Your task to perform on an android device: Check the weather Image 0: 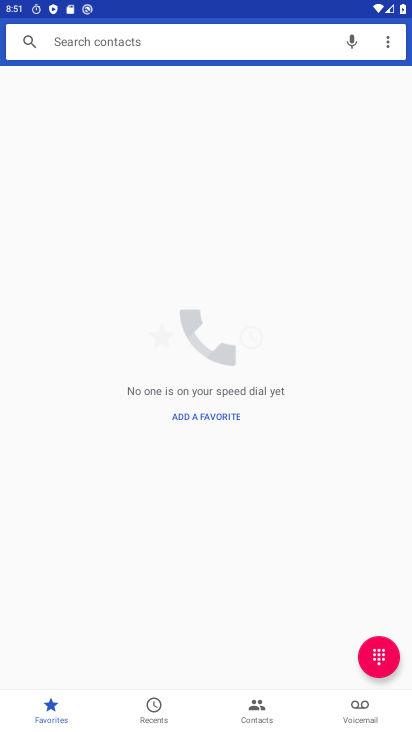
Step 0: drag from (246, 599) to (191, 101)
Your task to perform on an android device: Check the weather Image 1: 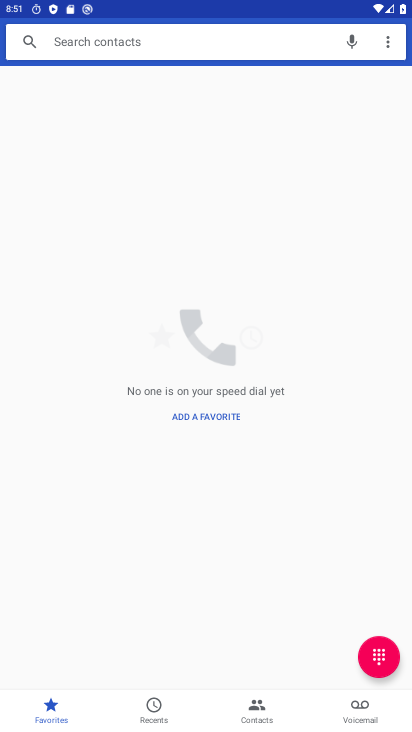
Step 1: drag from (144, 587) to (167, 363)
Your task to perform on an android device: Check the weather Image 2: 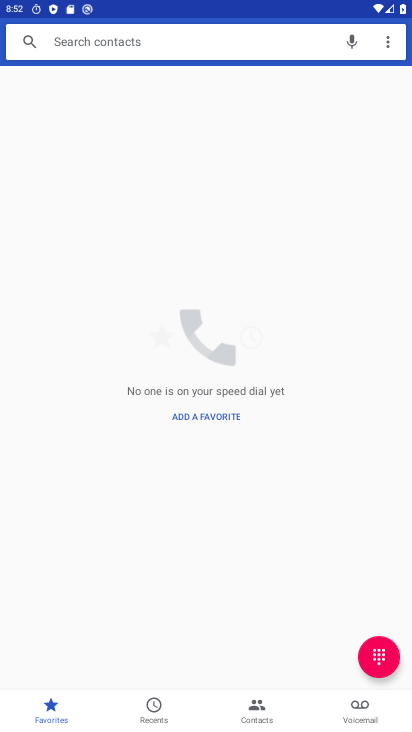
Step 2: drag from (220, 581) to (257, 286)
Your task to perform on an android device: Check the weather Image 3: 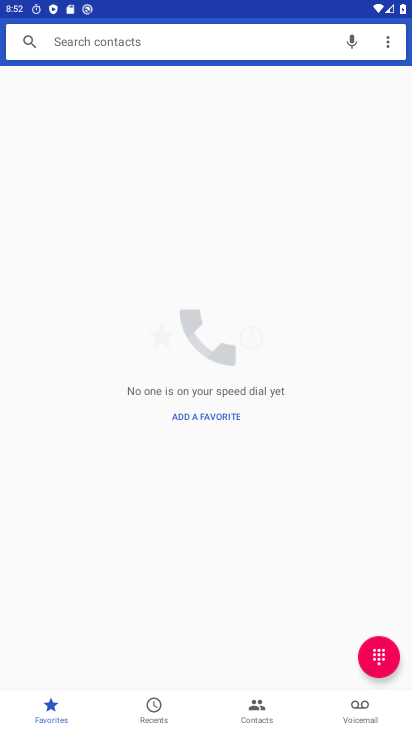
Step 3: press home button
Your task to perform on an android device: Check the weather Image 4: 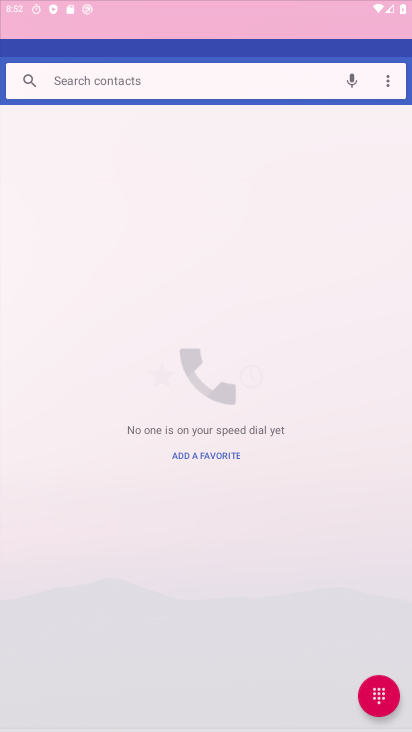
Step 4: drag from (266, 583) to (292, 128)
Your task to perform on an android device: Check the weather Image 5: 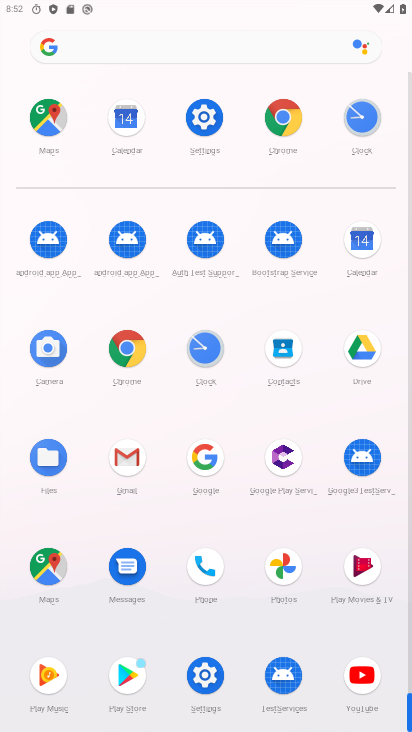
Step 5: click (112, 46)
Your task to perform on an android device: Check the weather Image 6: 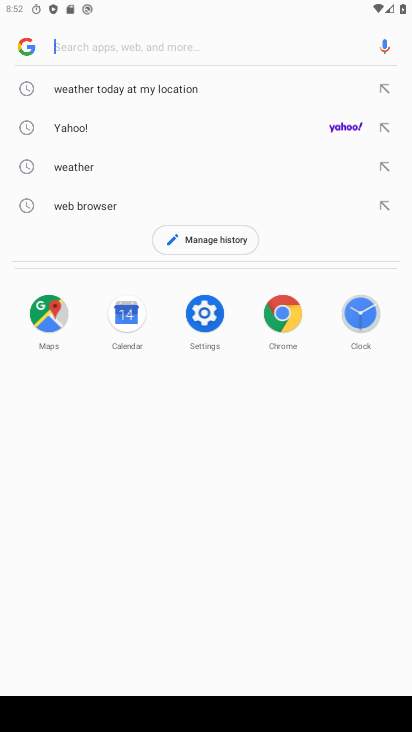
Step 6: click (88, 168)
Your task to perform on an android device: Check the weather Image 7: 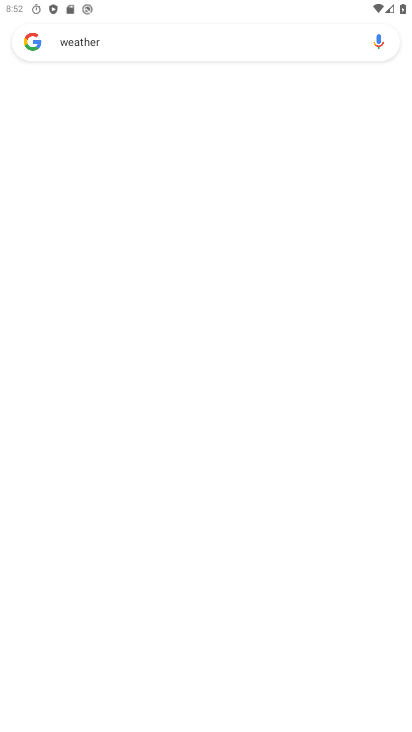
Step 7: task complete